Your task to perform on an android device: change your default location settings in chrome Image 0: 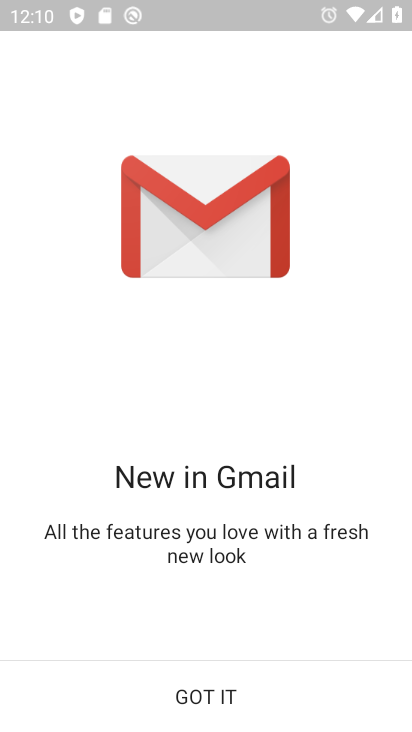
Step 0: press home button
Your task to perform on an android device: change your default location settings in chrome Image 1: 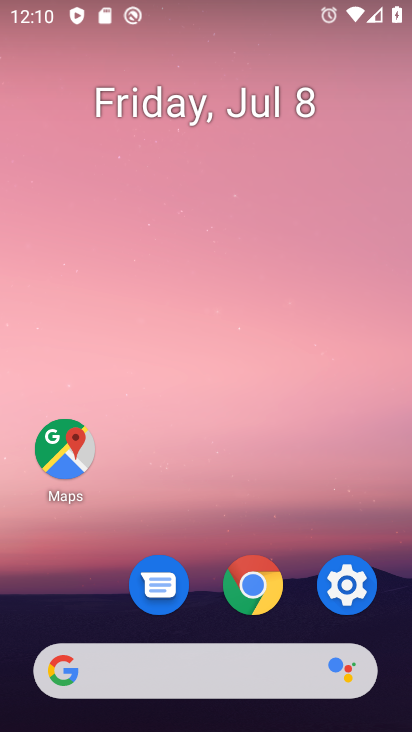
Step 1: click (257, 577)
Your task to perform on an android device: change your default location settings in chrome Image 2: 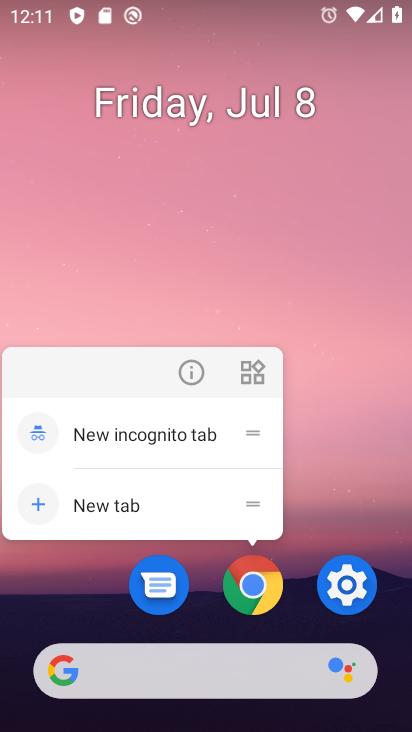
Step 2: click (244, 586)
Your task to perform on an android device: change your default location settings in chrome Image 3: 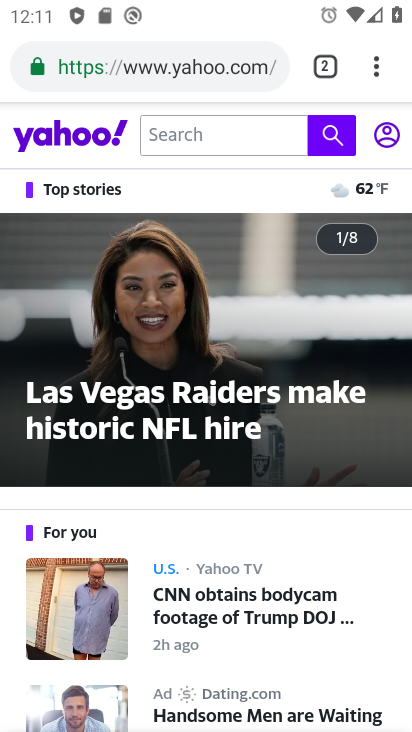
Step 3: click (376, 68)
Your task to perform on an android device: change your default location settings in chrome Image 4: 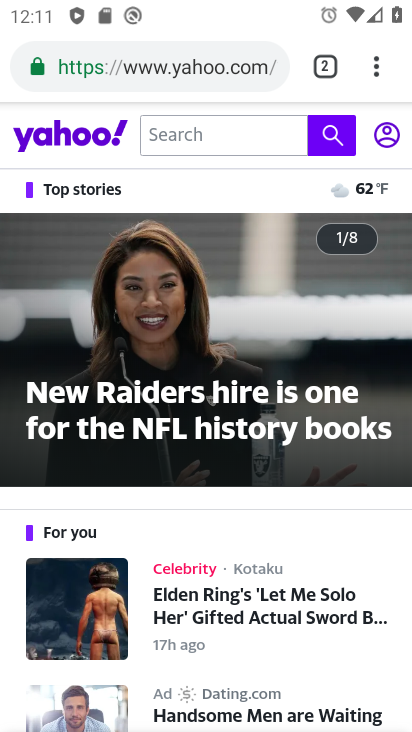
Step 4: click (374, 71)
Your task to perform on an android device: change your default location settings in chrome Image 5: 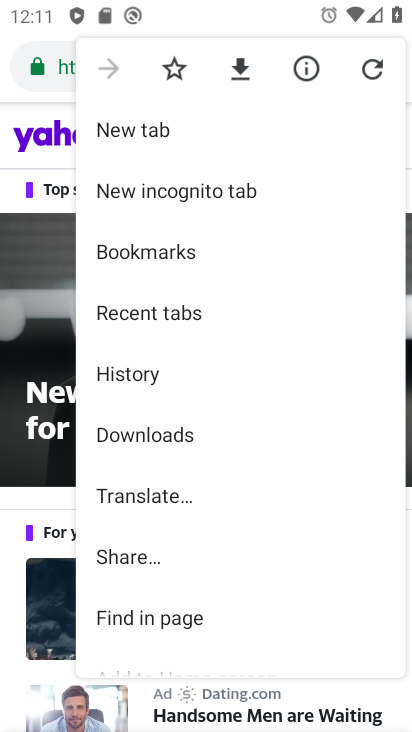
Step 5: drag from (167, 559) to (285, 322)
Your task to perform on an android device: change your default location settings in chrome Image 6: 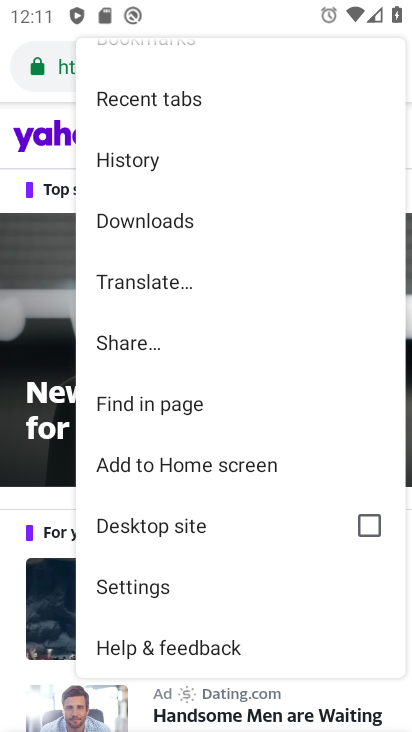
Step 6: click (128, 588)
Your task to perform on an android device: change your default location settings in chrome Image 7: 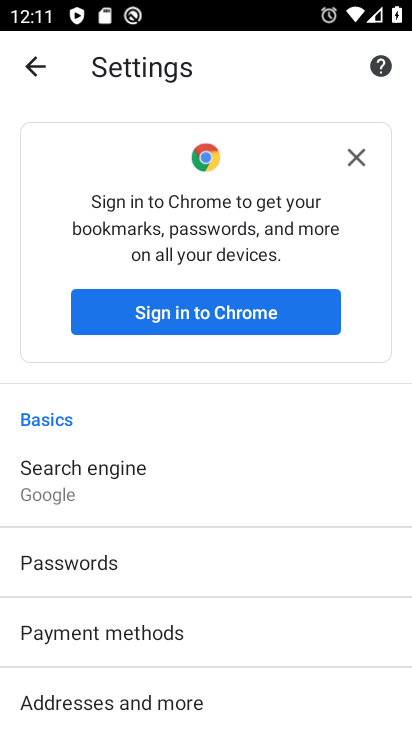
Step 7: drag from (104, 613) to (204, 309)
Your task to perform on an android device: change your default location settings in chrome Image 8: 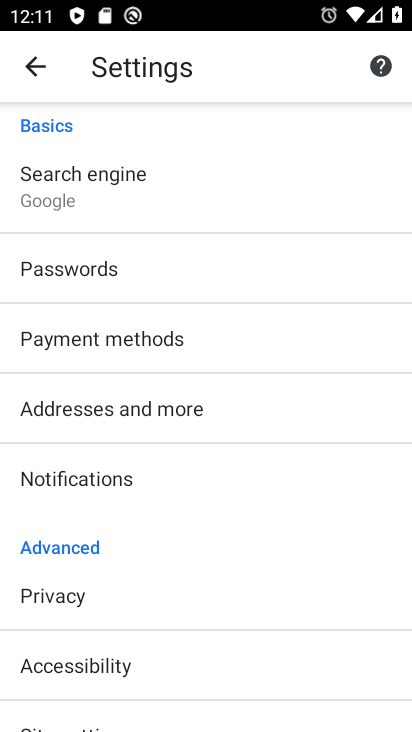
Step 8: drag from (118, 593) to (234, 356)
Your task to perform on an android device: change your default location settings in chrome Image 9: 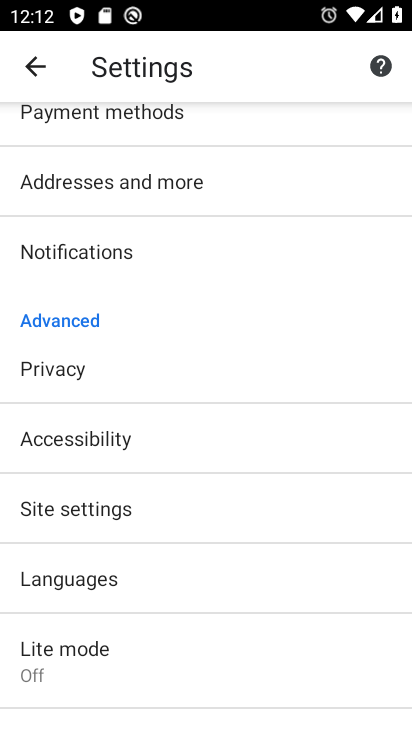
Step 9: click (106, 515)
Your task to perform on an android device: change your default location settings in chrome Image 10: 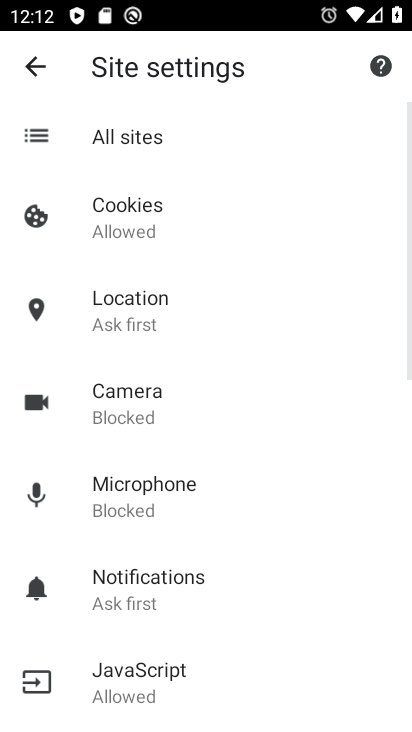
Step 10: click (165, 318)
Your task to perform on an android device: change your default location settings in chrome Image 11: 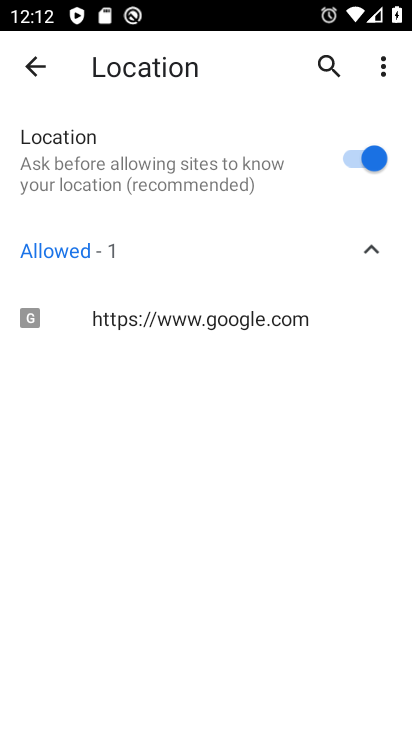
Step 11: task complete